Your task to perform on an android device: toggle improve location accuracy Image 0: 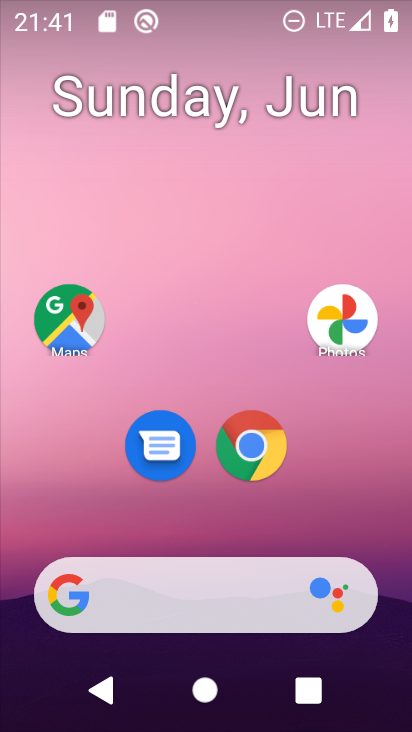
Step 0: press home button
Your task to perform on an android device: toggle improve location accuracy Image 1: 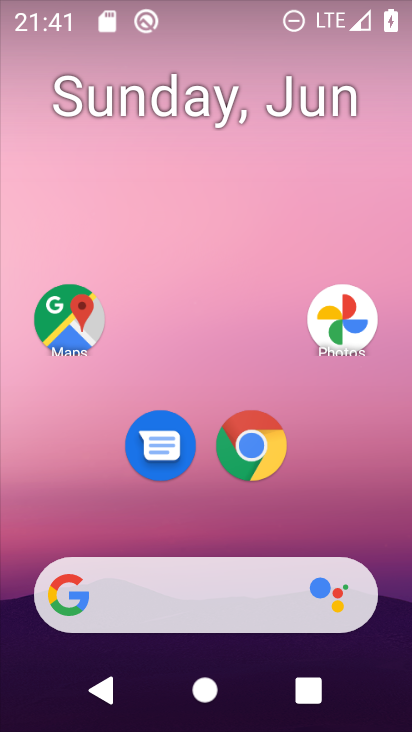
Step 1: drag from (337, 502) to (288, 100)
Your task to perform on an android device: toggle improve location accuracy Image 2: 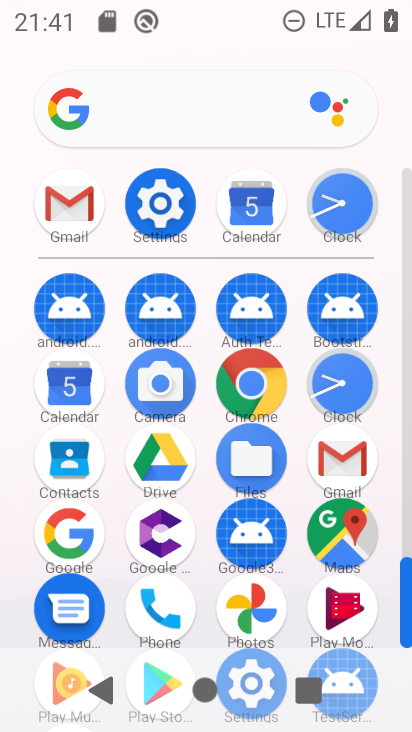
Step 2: click (154, 213)
Your task to perform on an android device: toggle improve location accuracy Image 3: 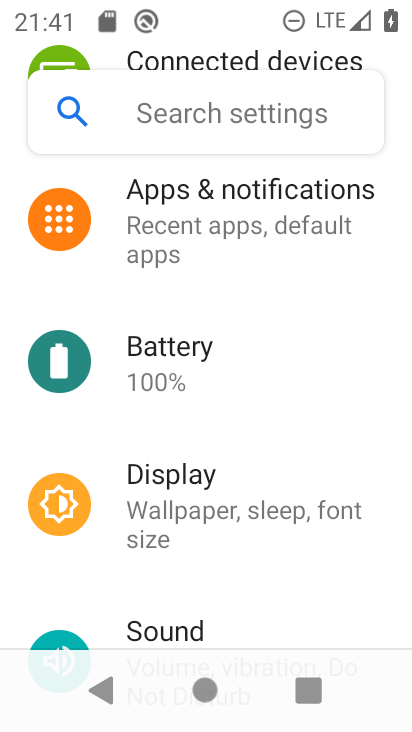
Step 3: drag from (328, 574) to (311, 195)
Your task to perform on an android device: toggle improve location accuracy Image 4: 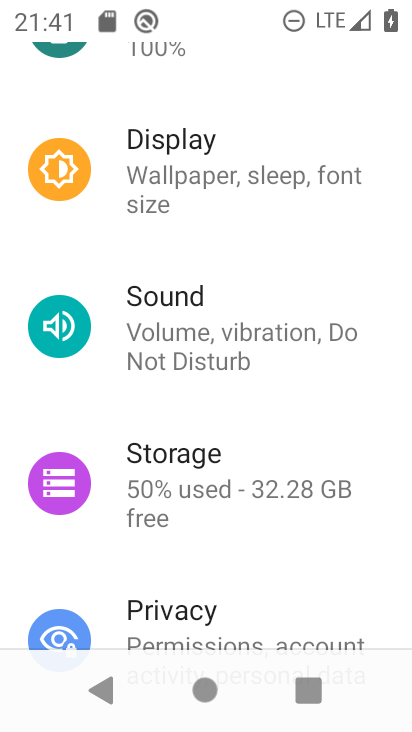
Step 4: drag from (329, 583) to (319, 181)
Your task to perform on an android device: toggle improve location accuracy Image 5: 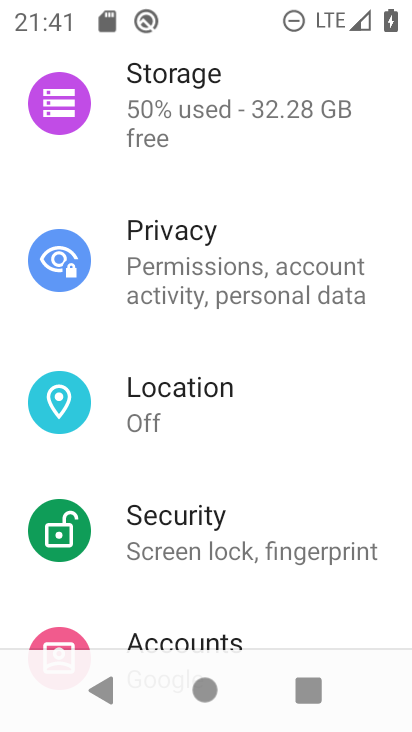
Step 5: click (168, 400)
Your task to perform on an android device: toggle improve location accuracy Image 6: 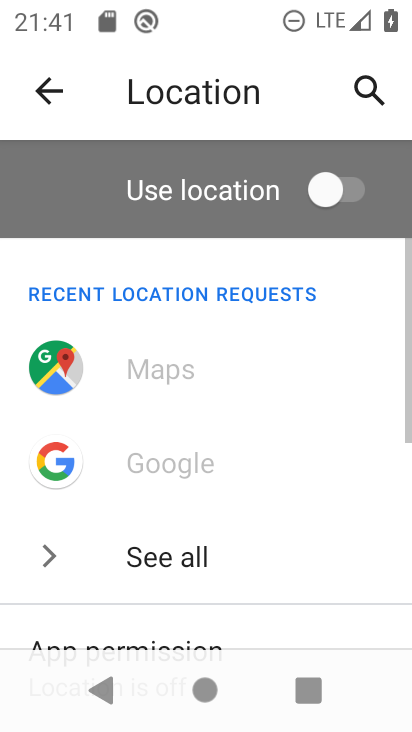
Step 6: drag from (358, 632) to (324, 16)
Your task to perform on an android device: toggle improve location accuracy Image 7: 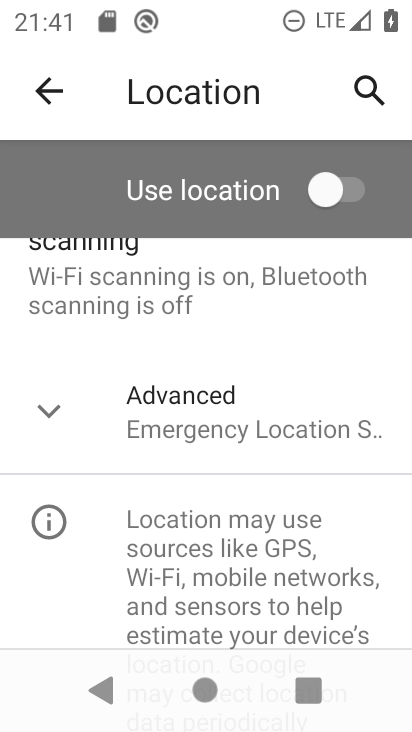
Step 7: click (182, 411)
Your task to perform on an android device: toggle improve location accuracy Image 8: 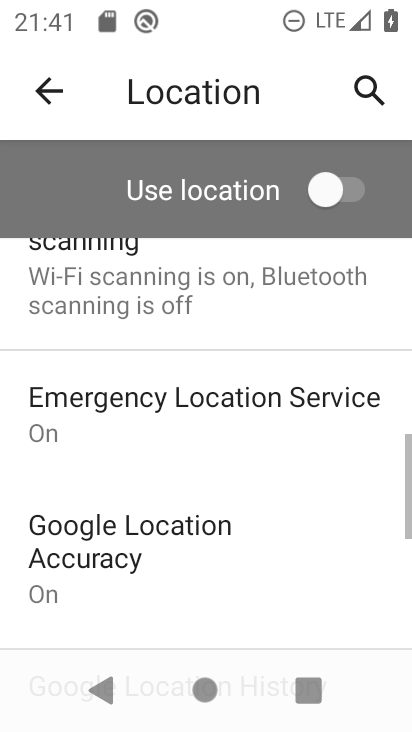
Step 8: drag from (325, 582) to (336, 156)
Your task to perform on an android device: toggle improve location accuracy Image 9: 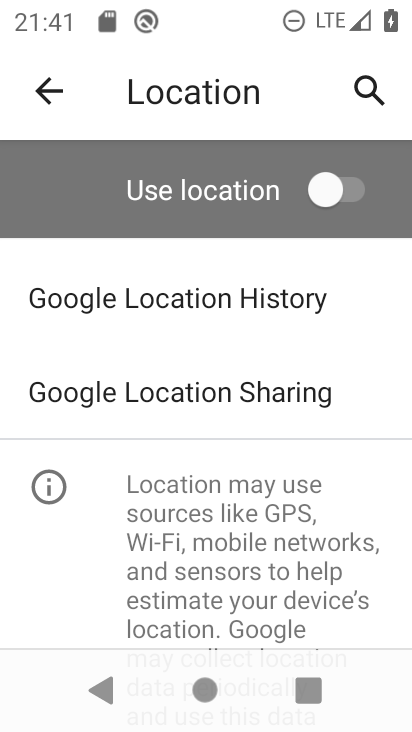
Step 9: drag from (320, 557) to (347, 204)
Your task to perform on an android device: toggle improve location accuracy Image 10: 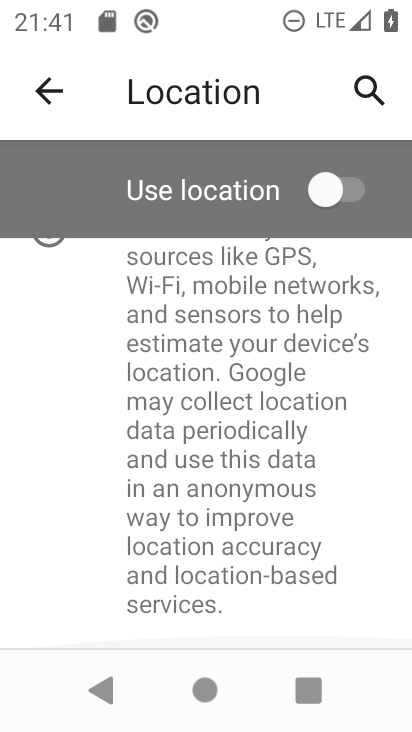
Step 10: drag from (243, 489) to (283, 141)
Your task to perform on an android device: toggle improve location accuracy Image 11: 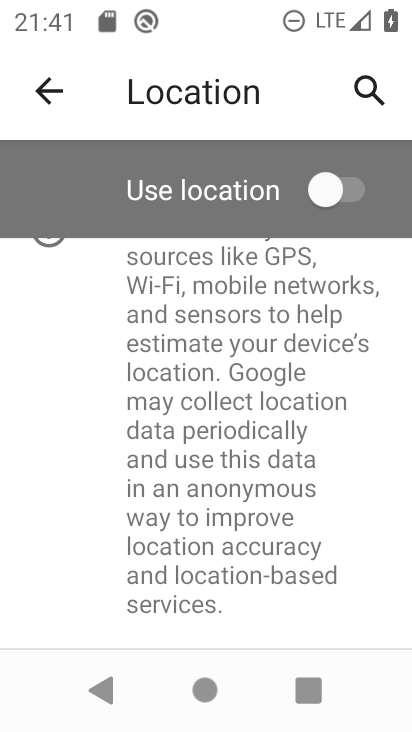
Step 11: drag from (358, 383) to (363, 725)
Your task to perform on an android device: toggle improve location accuracy Image 12: 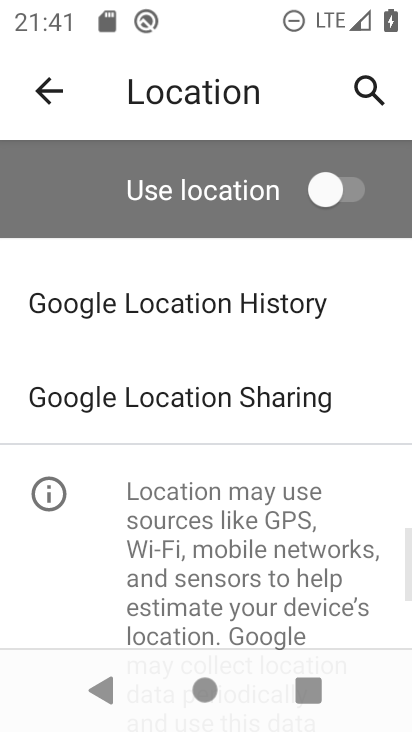
Step 12: drag from (364, 361) to (407, 678)
Your task to perform on an android device: toggle improve location accuracy Image 13: 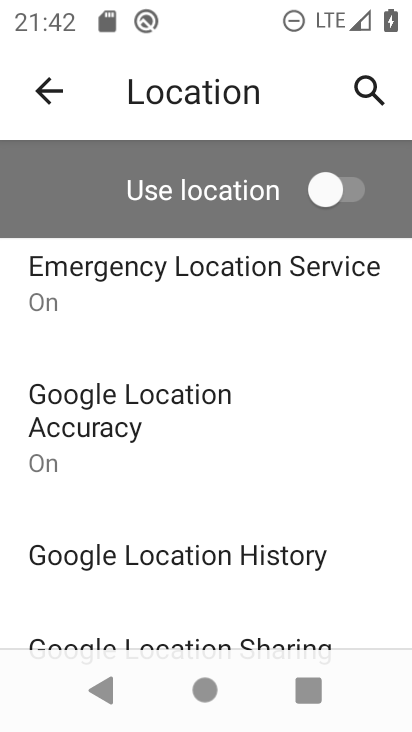
Step 13: click (128, 412)
Your task to perform on an android device: toggle improve location accuracy Image 14: 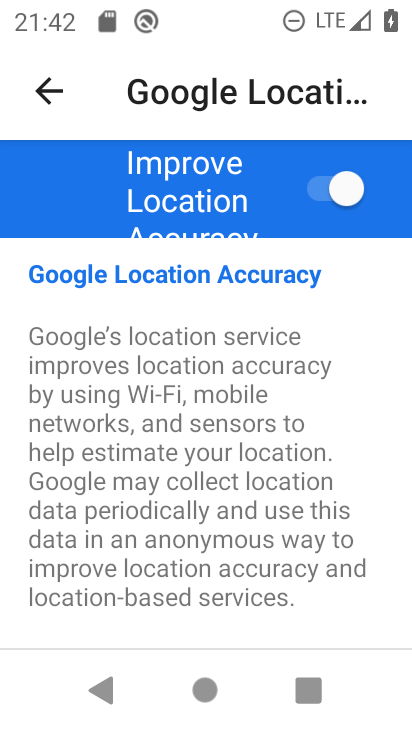
Step 14: click (349, 185)
Your task to perform on an android device: toggle improve location accuracy Image 15: 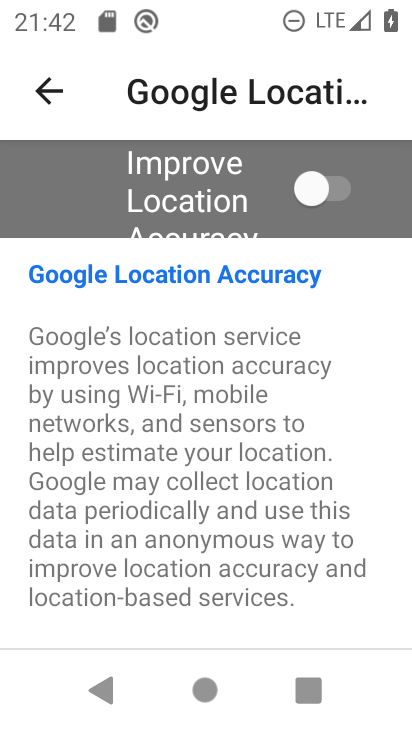
Step 15: task complete